Your task to perform on an android device: find snoozed emails in the gmail app Image 0: 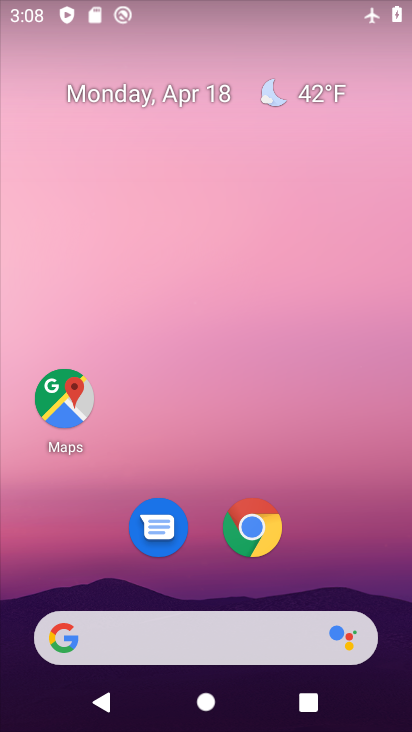
Step 0: drag from (270, 658) to (288, 38)
Your task to perform on an android device: find snoozed emails in the gmail app Image 1: 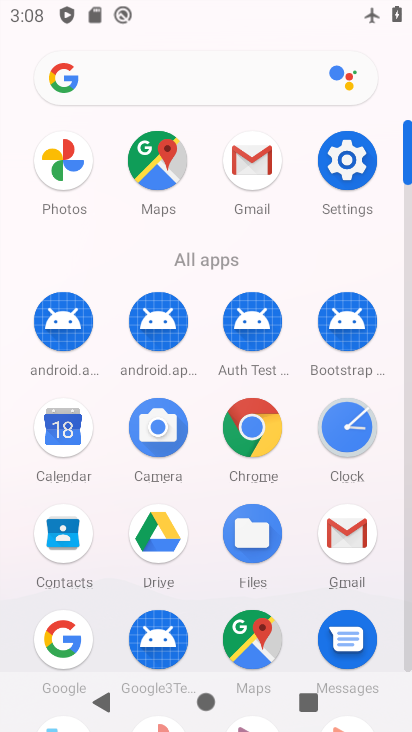
Step 1: click (349, 537)
Your task to perform on an android device: find snoozed emails in the gmail app Image 2: 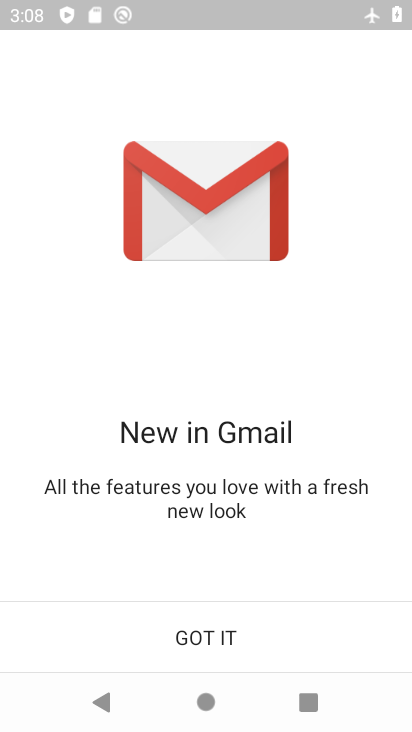
Step 2: click (194, 634)
Your task to perform on an android device: find snoozed emails in the gmail app Image 3: 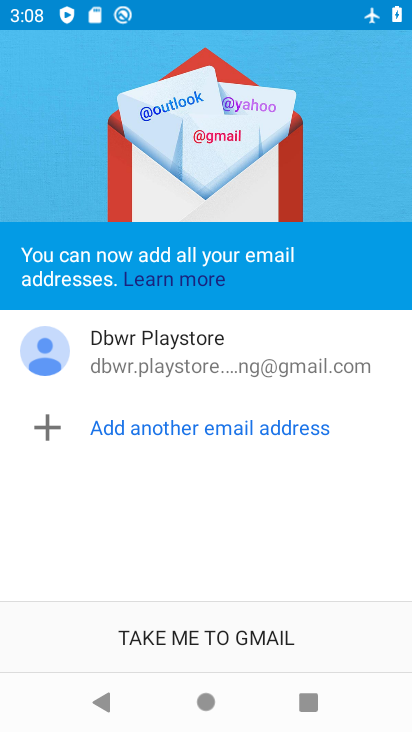
Step 3: click (231, 639)
Your task to perform on an android device: find snoozed emails in the gmail app Image 4: 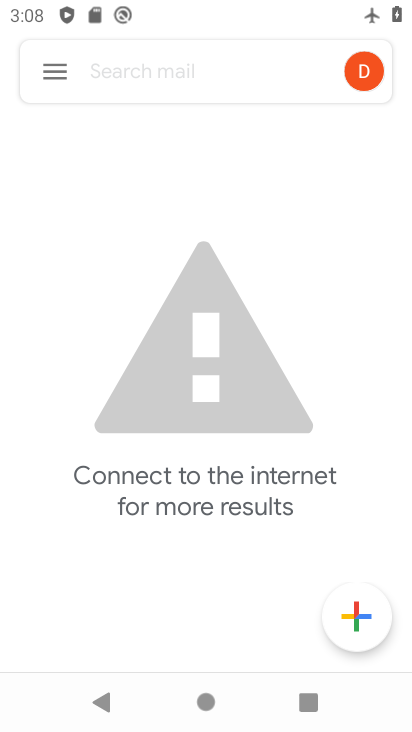
Step 4: click (373, 171)
Your task to perform on an android device: find snoozed emails in the gmail app Image 5: 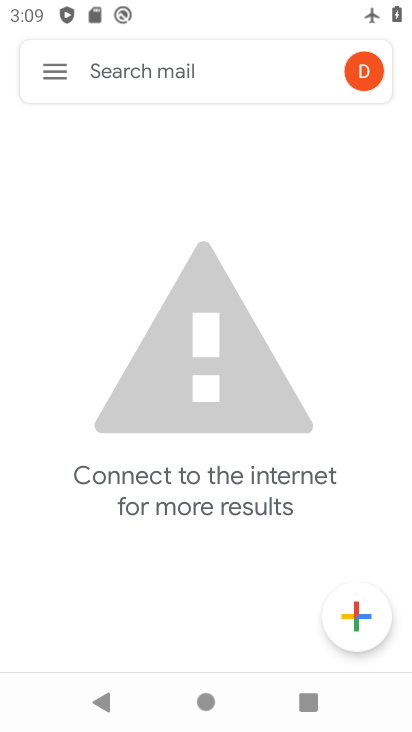
Step 5: click (52, 66)
Your task to perform on an android device: find snoozed emails in the gmail app Image 6: 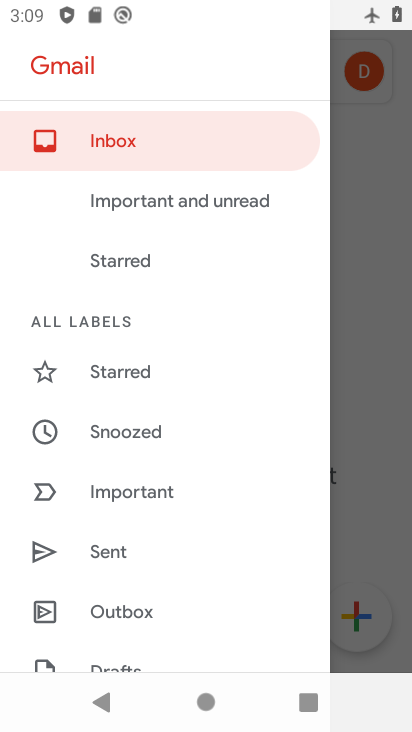
Step 6: click (116, 436)
Your task to perform on an android device: find snoozed emails in the gmail app Image 7: 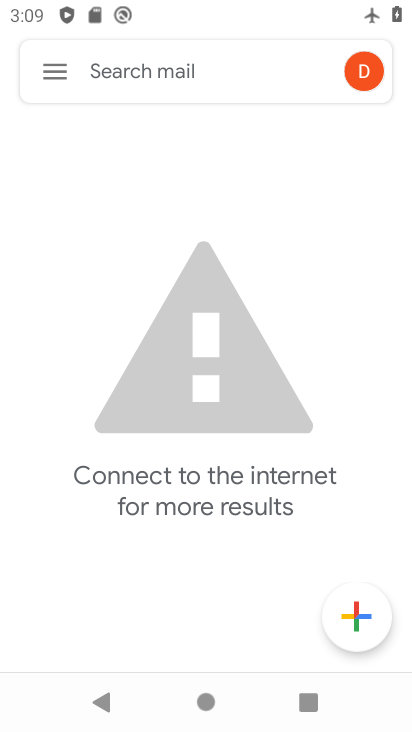
Step 7: task complete